Your task to perform on an android device: refresh tabs in the chrome app Image 0: 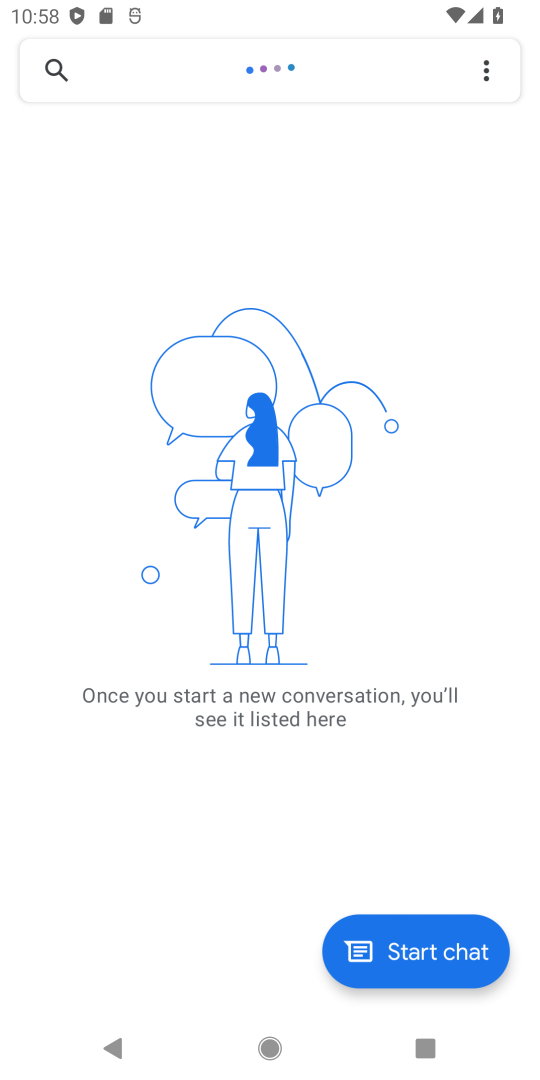
Step 0: press home button
Your task to perform on an android device: refresh tabs in the chrome app Image 1: 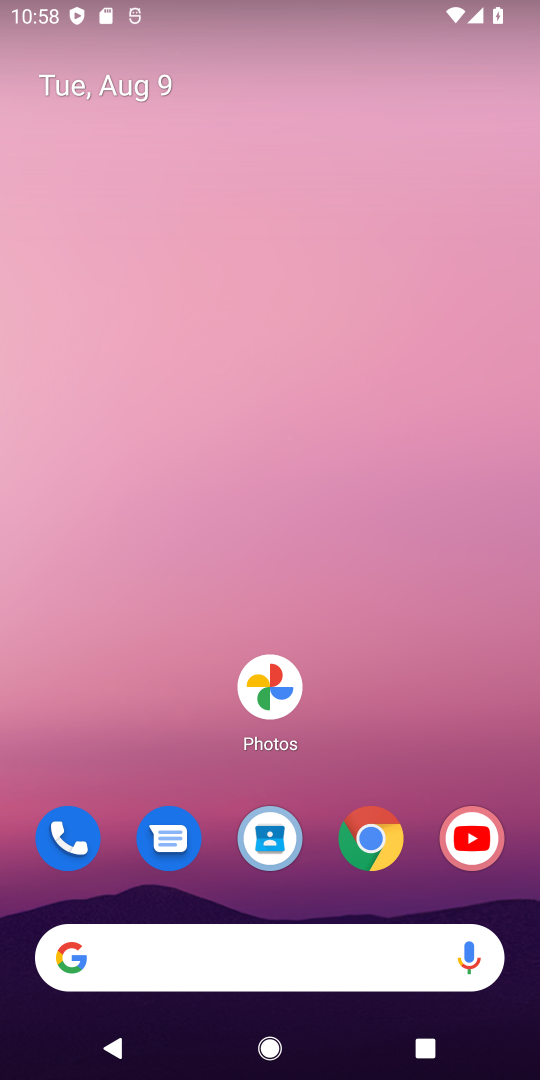
Step 1: drag from (324, 914) to (368, 228)
Your task to perform on an android device: refresh tabs in the chrome app Image 2: 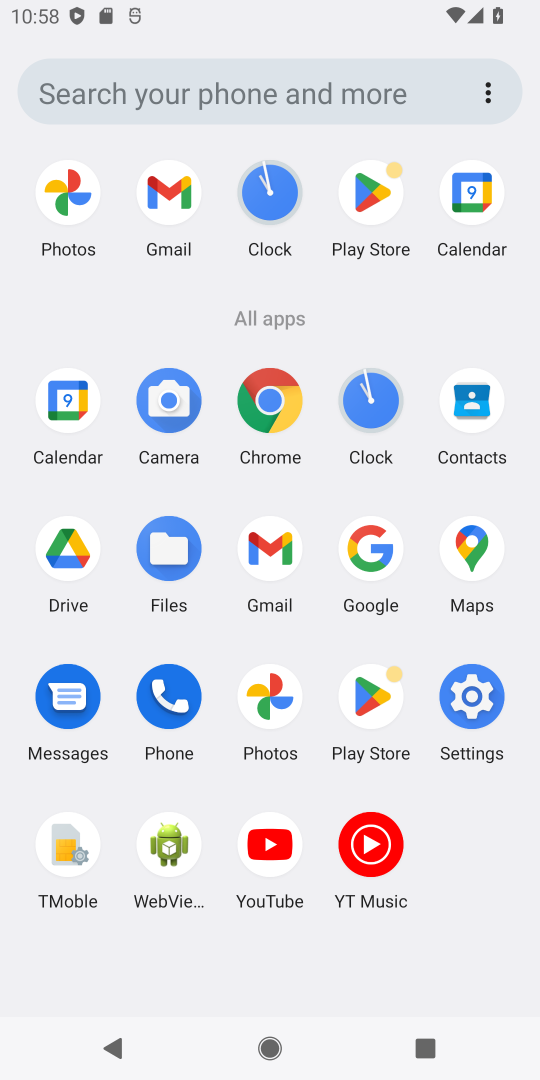
Step 2: click (275, 411)
Your task to perform on an android device: refresh tabs in the chrome app Image 3: 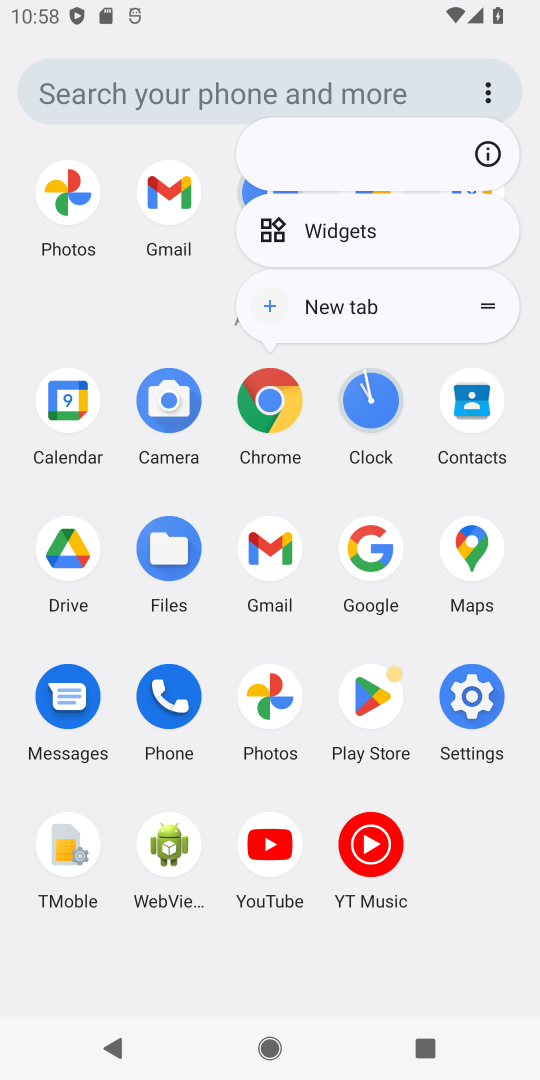
Step 3: task complete